Your task to perform on an android device: Open the stopwatch Image 0: 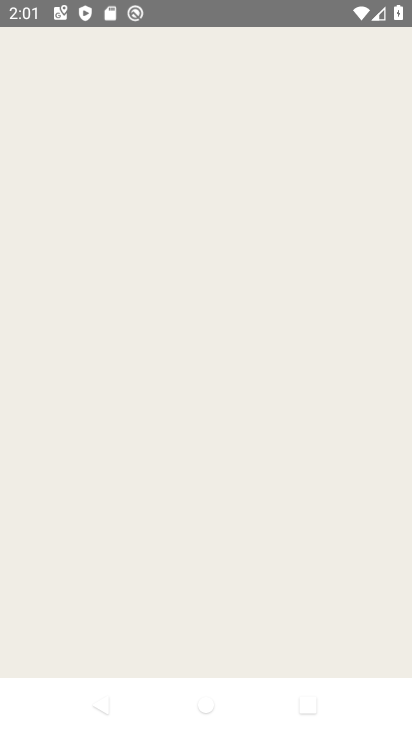
Step 0: press home button
Your task to perform on an android device: Open the stopwatch Image 1: 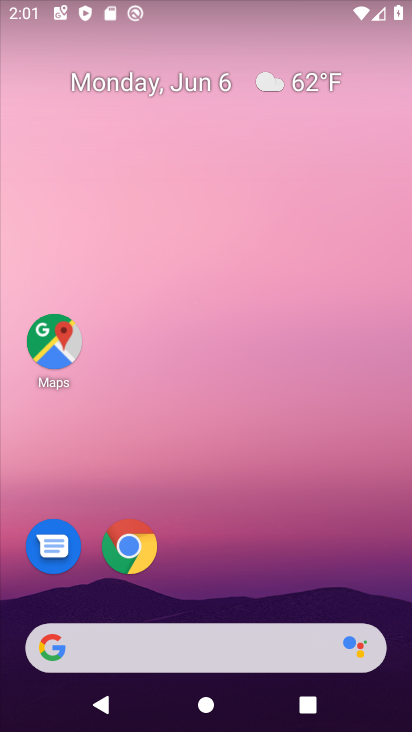
Step 1: drag from (296, 596) to (234, 328)
Your task to perform on an android device: Open the stopwatch Image 2: 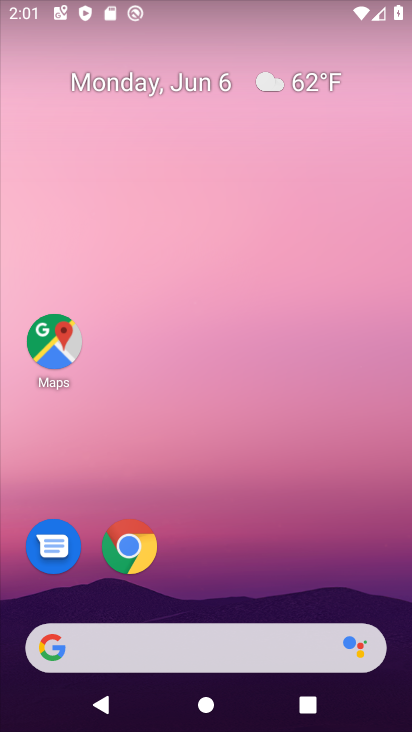
Step 2: drag from (222, 498) to (232, 227)
Your task to perform on an android device: Open the stopwatch Image 3: 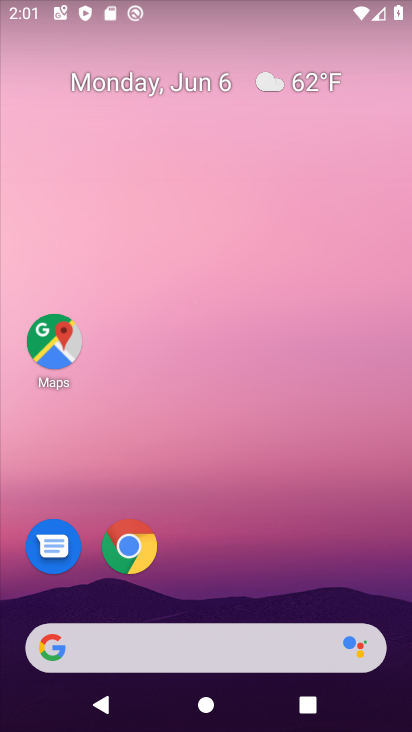
Step 3: drag from (260, 553) to (267, 218)
Your task to perform on an android device: Open the stopwatch Image 4: 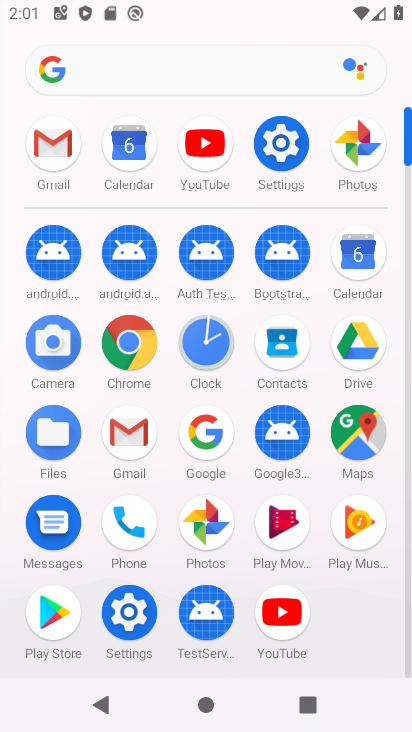
Step 4: click (215, 337)
Your task to perform on an android device: Open the stopwatch Image 5: 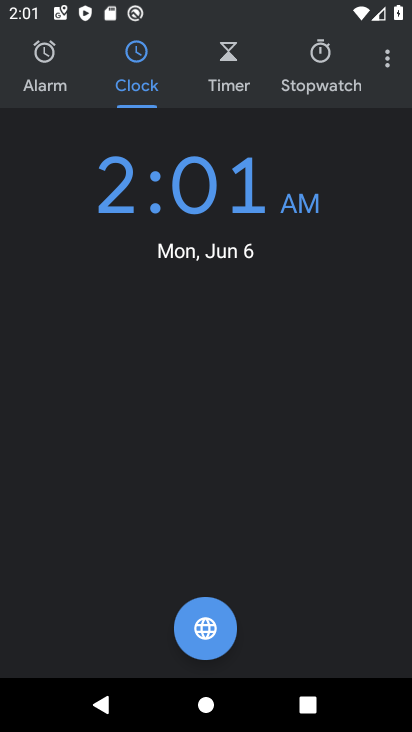
Step 5: click (342, 75)
Your task to perform on an android device: Open the stopwatch Image 6: 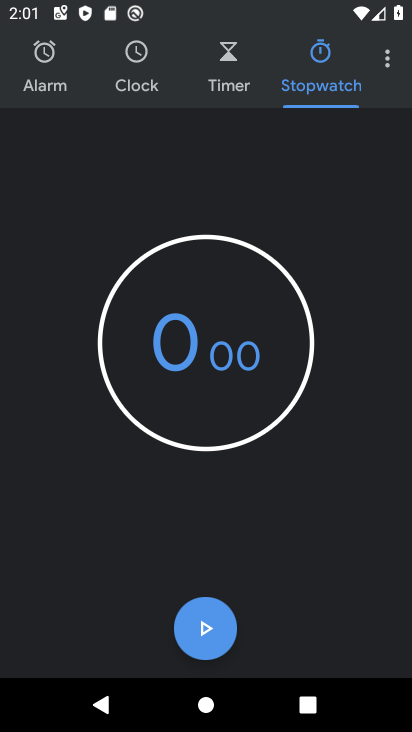
Step 6: task complete